Your task to perform on an android device: turn on location history Image 0: 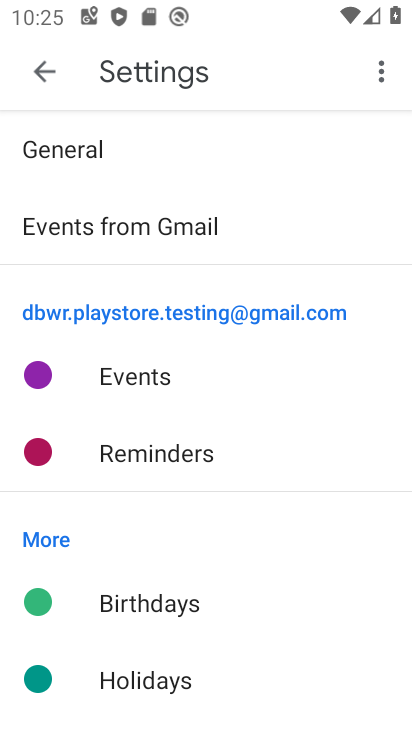
Step 0: press home button
Your task to perform on an android device: turn on location history Image 1: 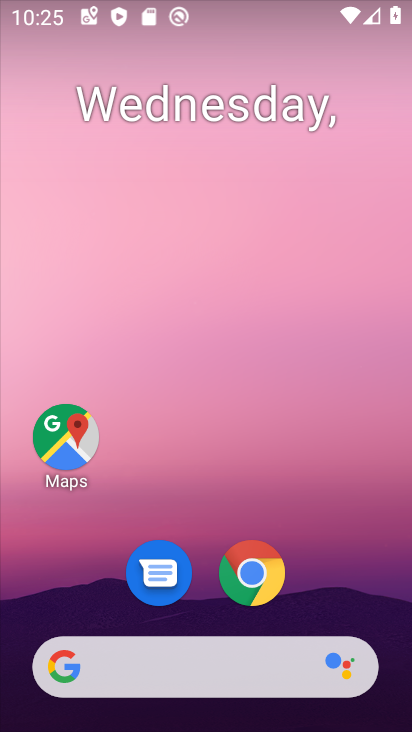
Step 1: drag from (391, 594) to (391, 139)
Your task to perform on an android device: turn on location history Image 2: 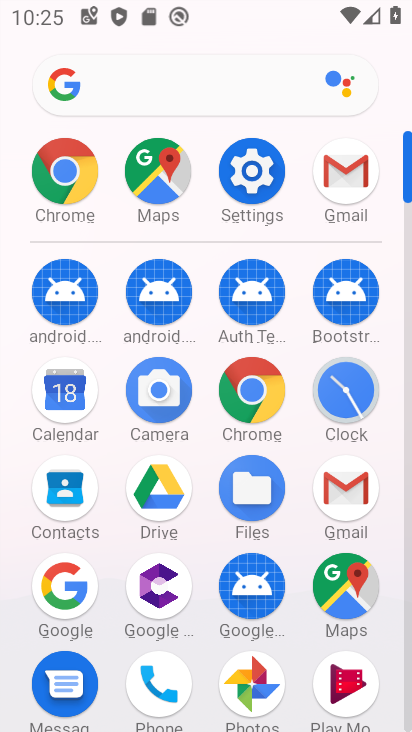
Step 2: click (252, 171)
Your task to perform on an android device: turn on location history Image 3: 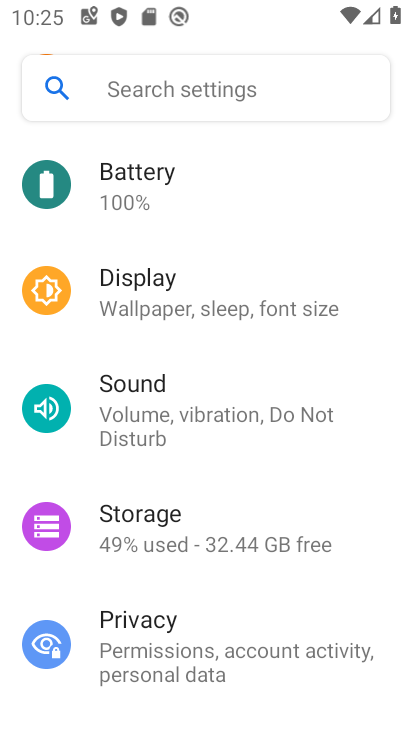
Step 3: drag from (360, 629) to (354, 476)
Your task to perform on an android device: turn on location history Image 4: 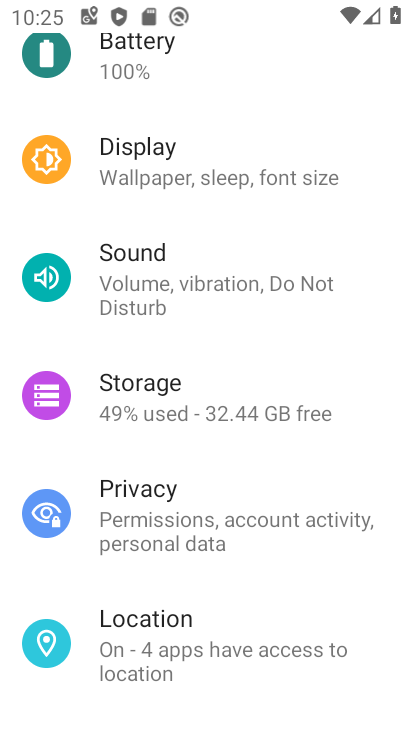
Step 4: drag from (350, 611) to (355, 453)
Your task to perform on an android device: turn on location history Image 5: 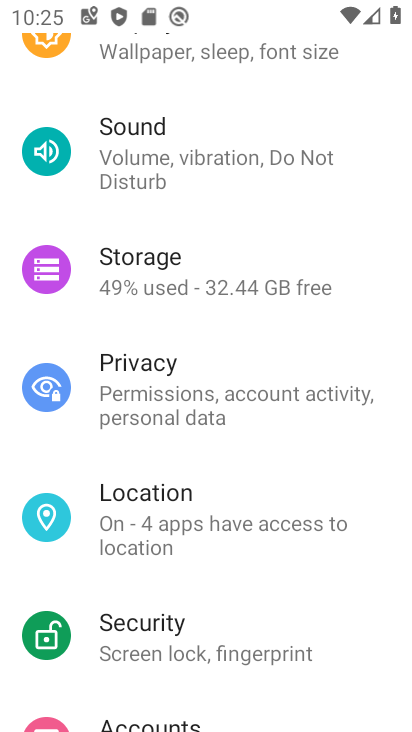
Step 5: drag from (356, 643) to (364, 493)
Your task to perform on an android device: turn on location history Image 6: 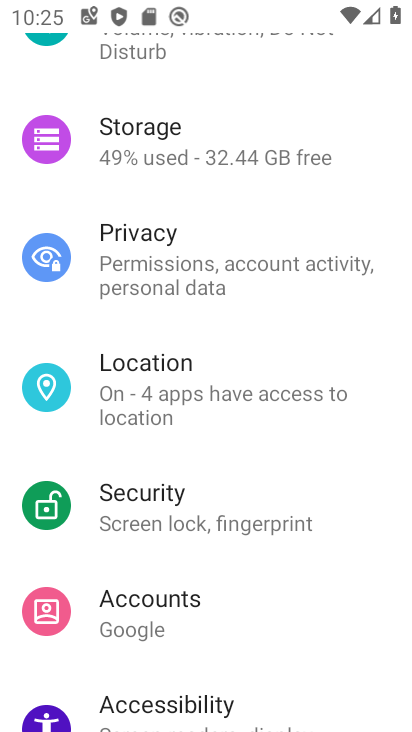
Step 6: drag from (365, 665) to (371, 511)
Your task to perform on an android device: turn on location history Image 7: 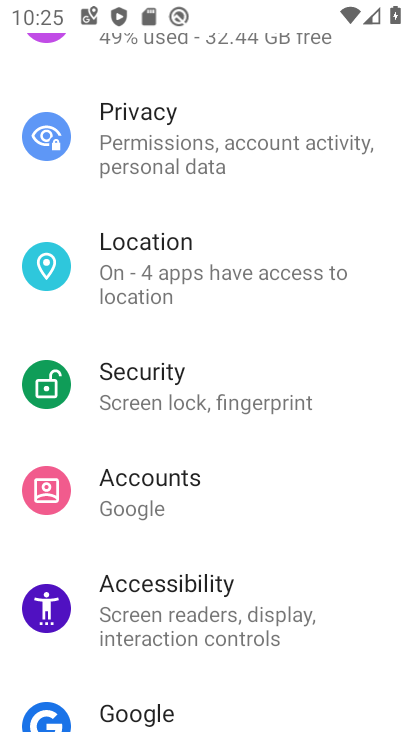
Step 7: drag from (351, 662) to (365, 502)
Your task to perform on an android device: turn on location history Image 8: 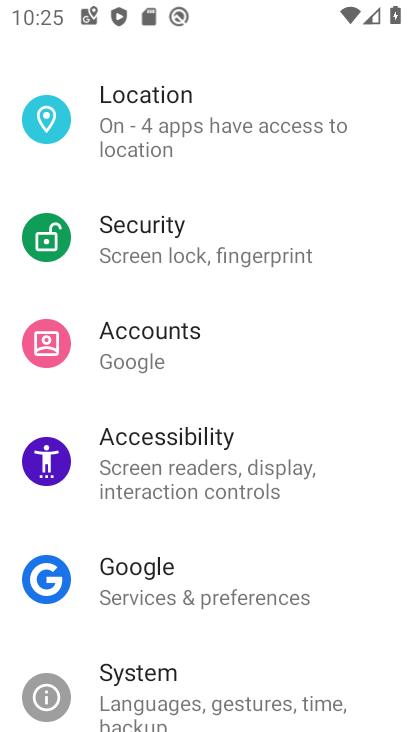
Step 8: drag from (369, 657) to (377, 510)
Your task to perform on an android device: turn on location history Image 9: 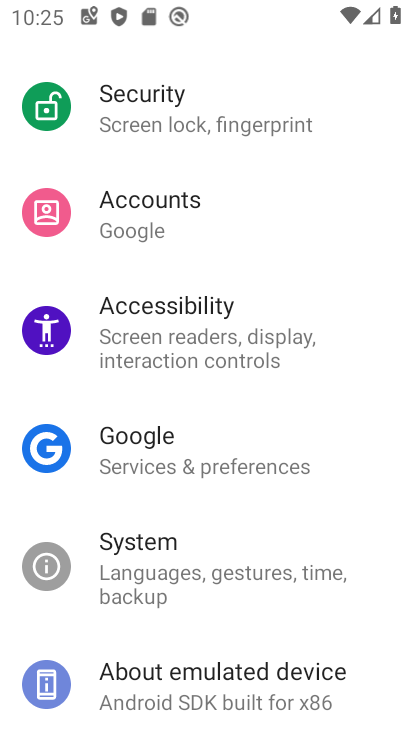
Step 9: drag from (372, 695) to (376, 541)
Your task to perform on an android device: turn on location history Image 10: 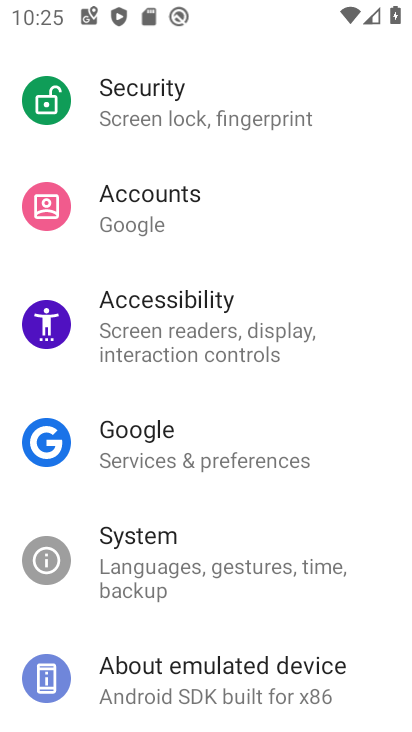
Step 10: drag from (374, 403) to (372, 538)
Your task to perform on an android device: turn on location history Image 11: 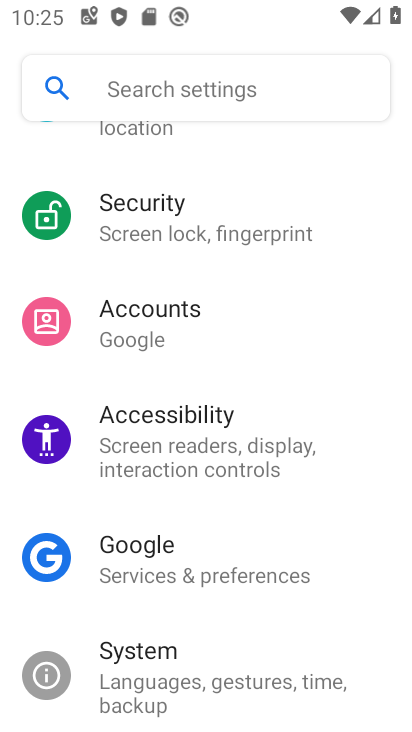
Step 11: drag from (358, 371) to (351, 493)
Your task to perform on an android device: turn on location history Image 12: 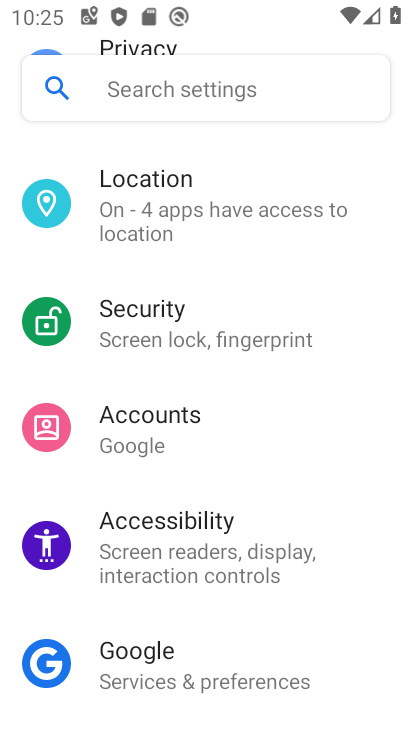
Step 12: drag from (351, 321) to (349, 435)
Your task to perform on an android device: turn on location history Image 13: 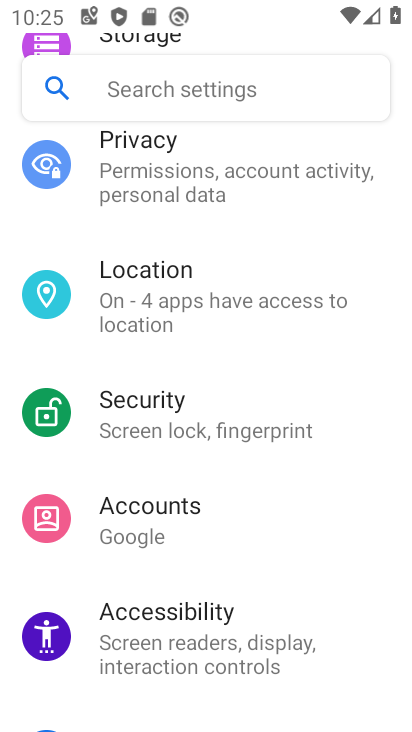
Step 13: drag from (365, 277) to (365, 411)
Your task to perform on an android device: turn on location history Image 14: 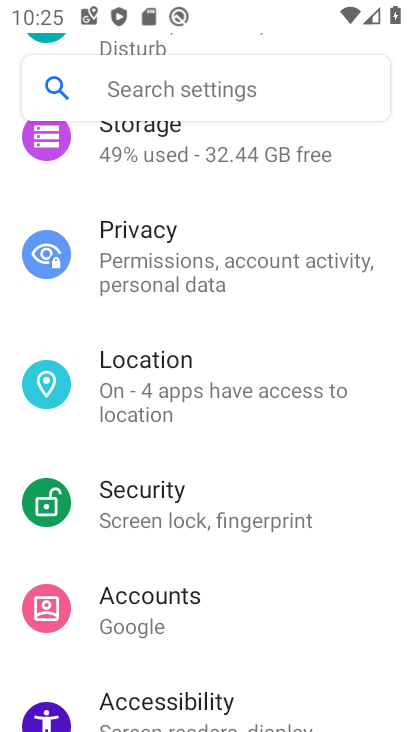
Step 14: click (247, 378)
Your task to perform on an android device: turn on location history Image 15: 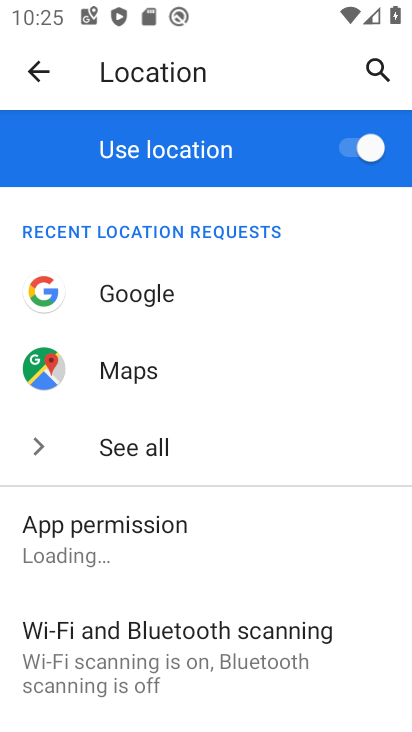
Step 15: drag from (271, 553) to (282, 451)
Your task to perform on an android device: turn on location history Image 16: 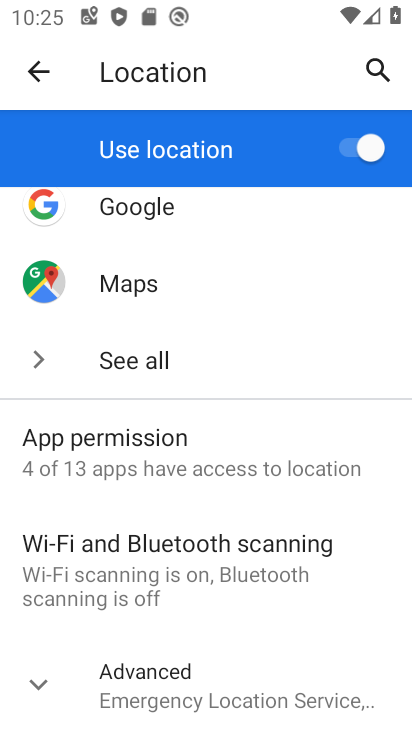
Step 16: drag from (282, 615) to (309, 450)
Your task to perform on an android device: turn on location history Image 17: 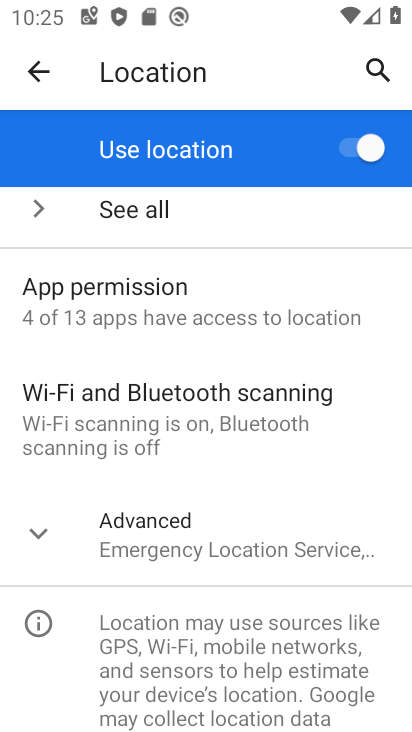
Step 17: click (290, 555)
Your task to perform on an android device: turn on location history Image 18: 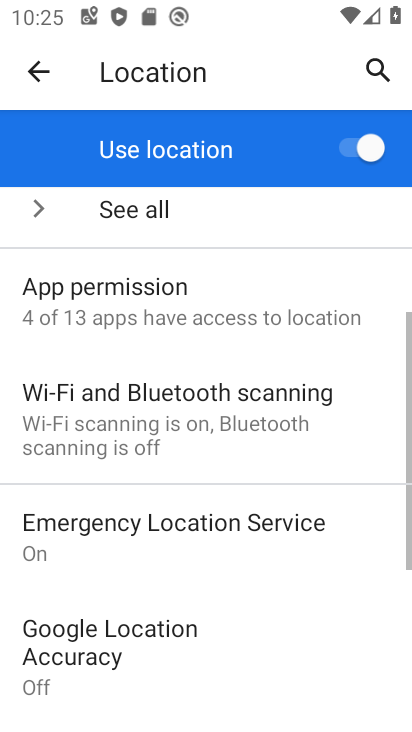
Step 18: drag from (298, 616) to (297, 488)
Your task to perform on an android device: turn on location history Image 19: 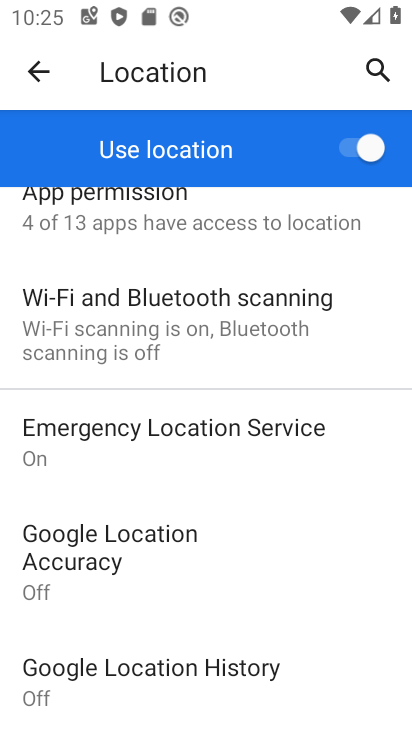
Step 19: drag from (296, 611) to (301, 503)
Your task to perform on an android device: turn on location history Image 20: 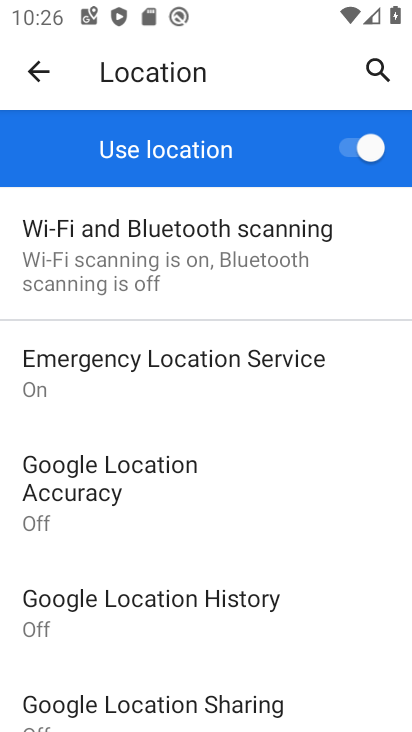
Step 20: drag from (305, 650) to (321, 579)
Your task to perform on an android device: turn on location history Image 21: 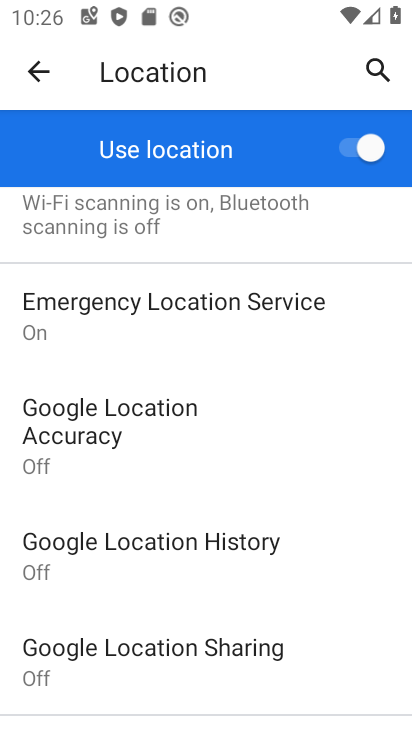
Step 21: drag from (330, 666) to (340, 557)
Your task to perform on an android device: turn on location history Image 22: 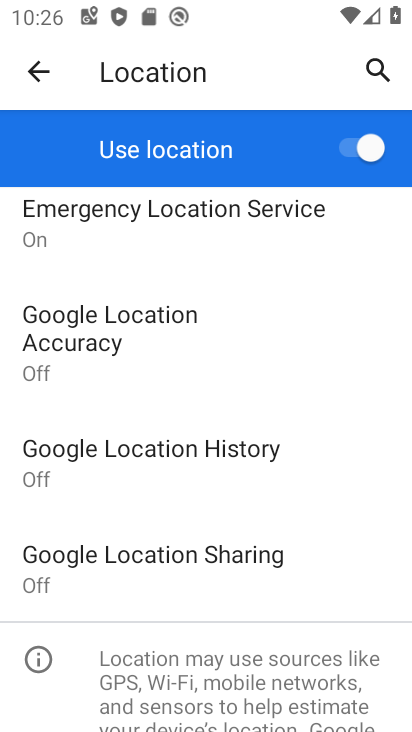
Step 22: click (239, 453)
Your task to perform on an android device: turn on location history Image 23: 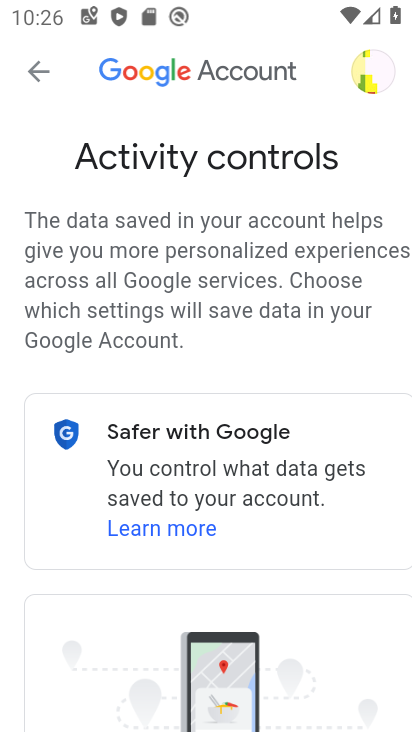
Step 23: task complete